Your task to perform on an android device: Search for Mexican restaurants on Maps Image 0: 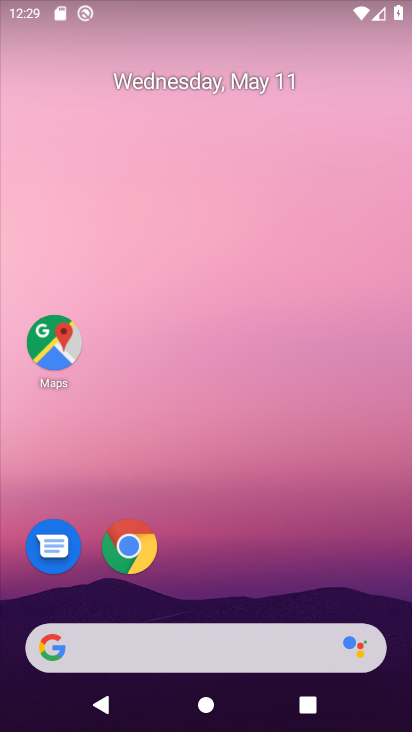
Step 0: drag from (240, 557) to (251, 311)
Your task to perform on an android device: Search for Mexican restaurants on Maps Image 1: 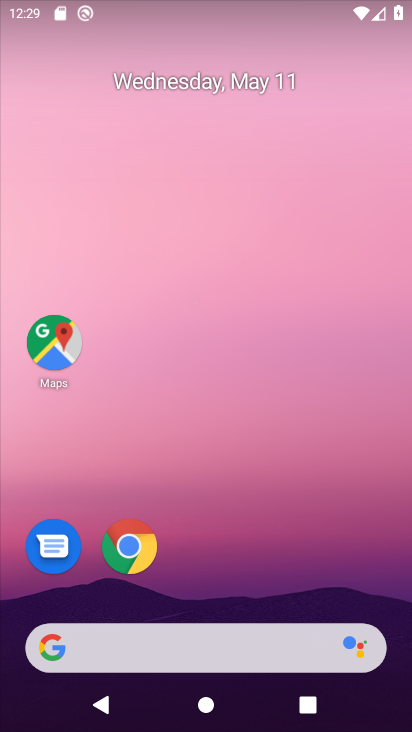
Step 1: drag from (256, 547) to (286, 223)
Your task to perform on an android device: Search for Mexican restaurants on Maps Image 2: 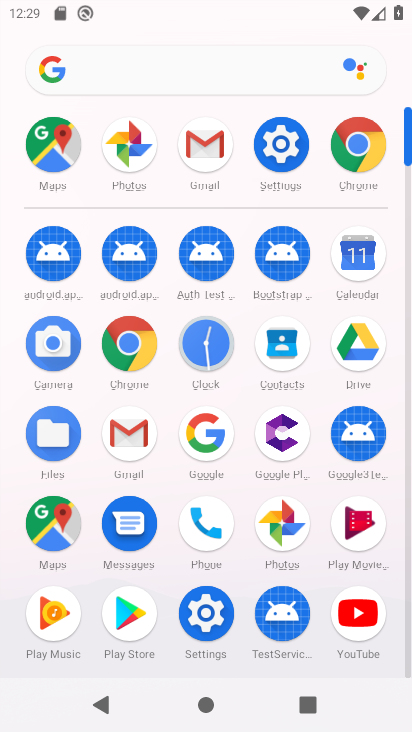
Step 2: click (33, 527)
Your task to perform on an android device: Search for Mexican restaurants on Maps Image 3: 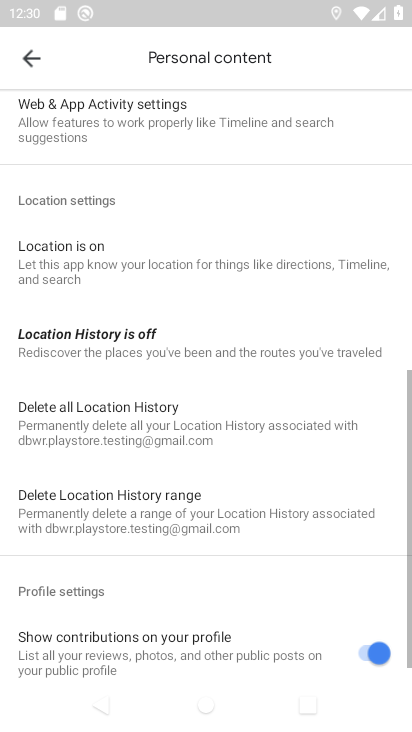
Step 3: click (21, 50)
Your task to perform on an android device: Search for Mexican restaurants on Maps Image 4: 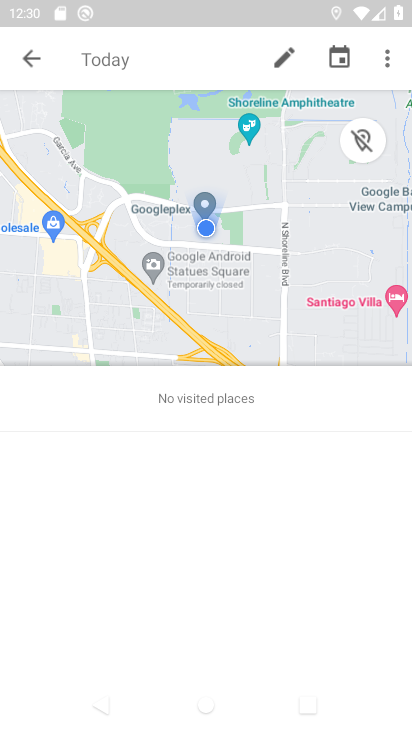
Step 4: click (23, 60)
Your task to perform on an android device: Search for Mexican restaurants on Maps Image 5: 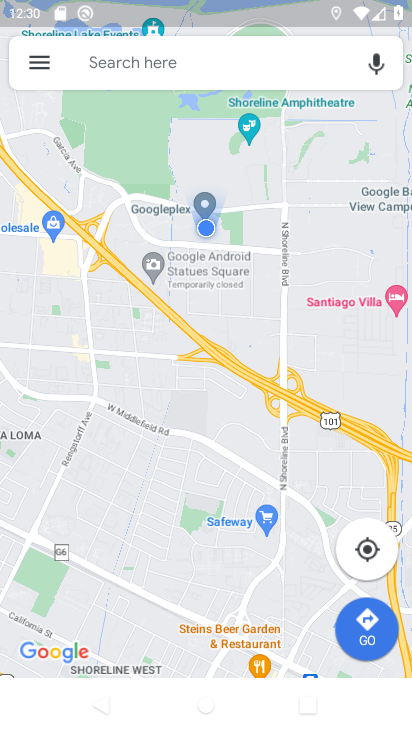
Step 5: click (171, 47)
Your task to perform on an android device: Search for Mexican restaurants on Maps Image 6: 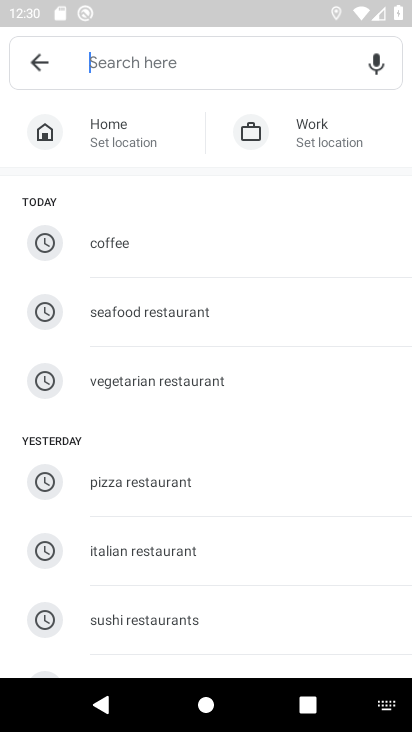
Step 6: drag from (184, 596) to (234, 280)
Your task to perform on an android device: Search for Mexican restaurants on Maps Image 7: 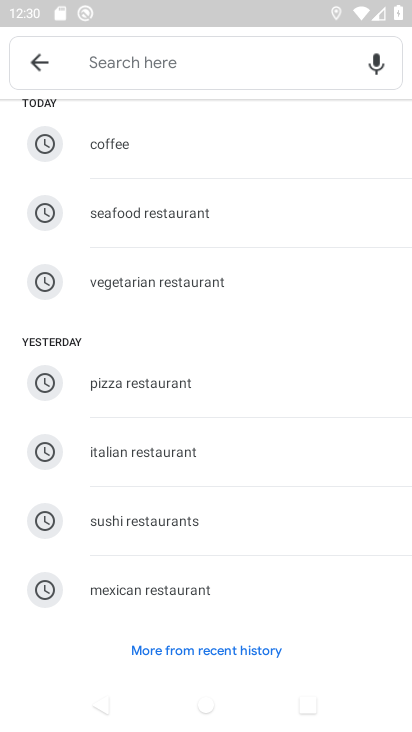
Step 7: click (169, 596)
Your task to perform on an android device: Search for Mexican restaurants on Maps Image 8: 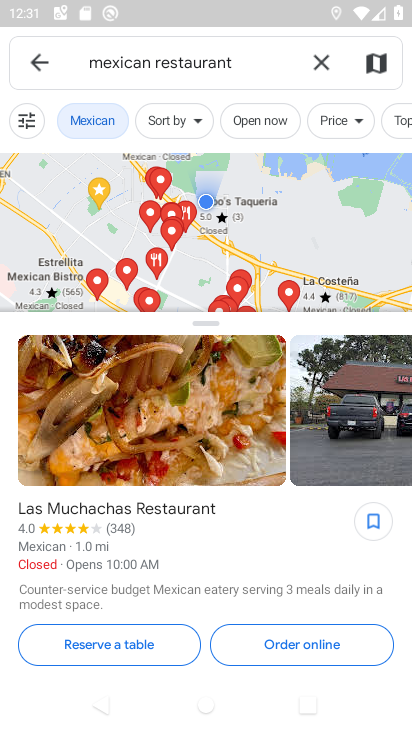
Step 8: task complete